Your task to perform on an android device: check the backup settings in the google photos Image 0: 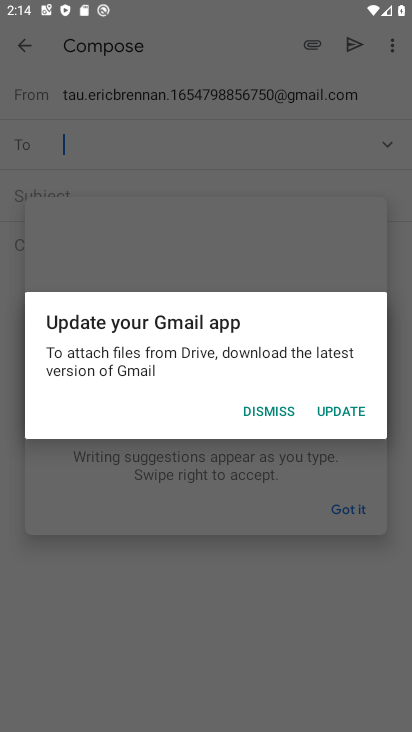
Step 0: press home button
Your task to perform on an android device: check the backup settings in the google photos Image 1: 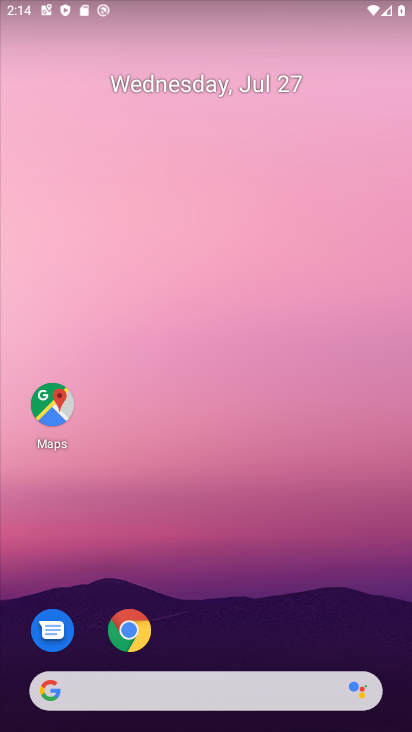
Step 1: drag from (400, 655) to (341, 135)
Your task to perform on an android device: check the backup settings in the google photos Image 2: 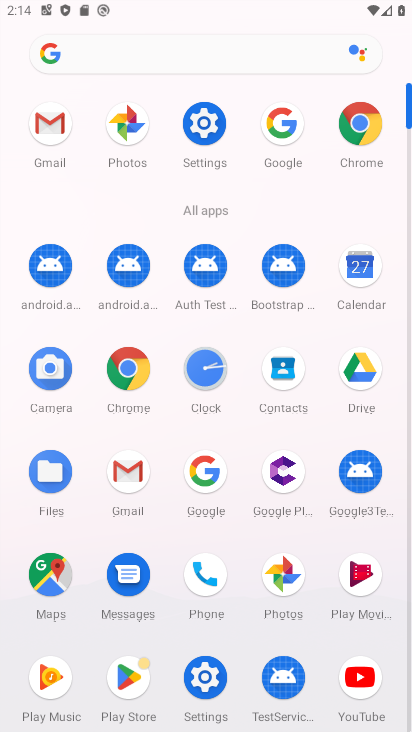
Step 2: click (287, 572)
Your task to perform on an android device: check the backup settings in the google photos Image 3: 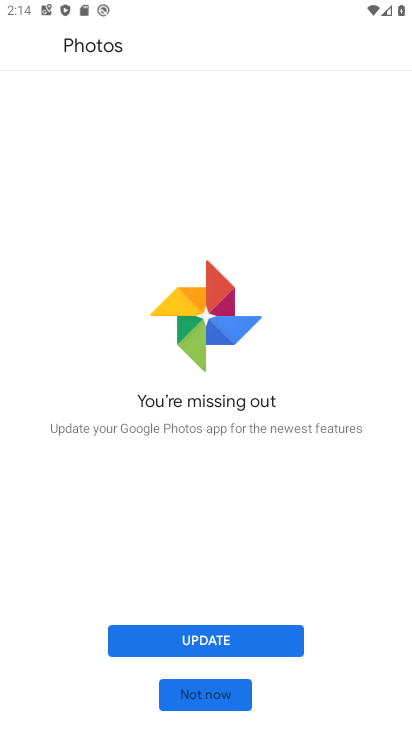
Step 3: click (189, 636)
Your task to perform on an android device: check the backup settings in the google photos Image 4: 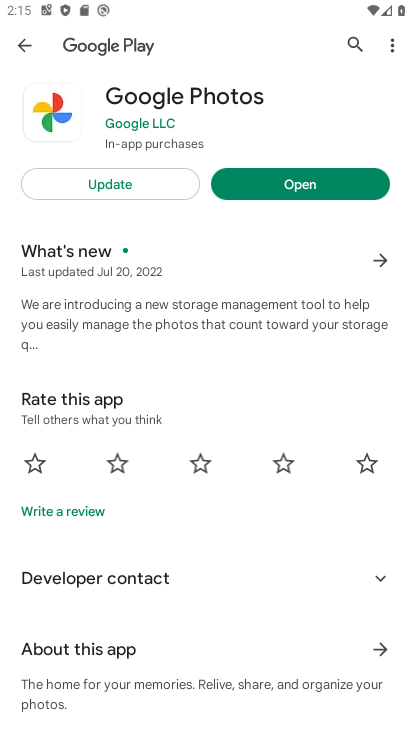
Step 4: click (146, 182)
Your task to perform on an android device: check the backup settings in the google photos Image 5: 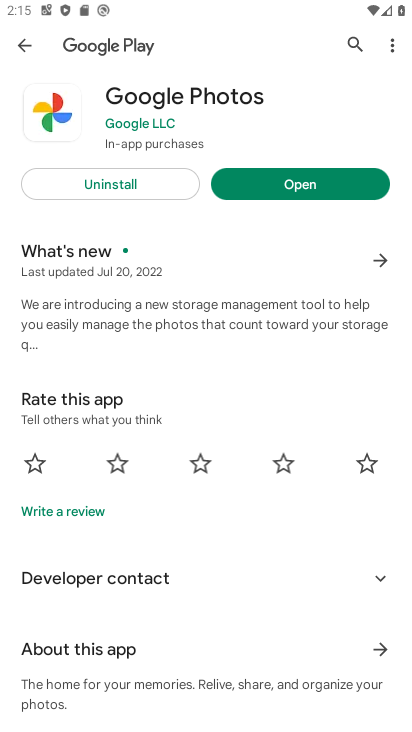
Step 5: click (277, 179)
Your task to perform on an android device: check the backup settings in the google photos Image 6: 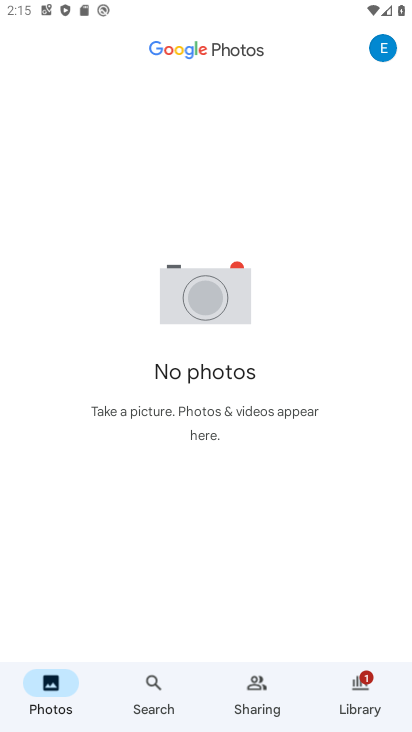
Step 6: task complete